Your task to perform on an android device: Show me recent news Image 0: 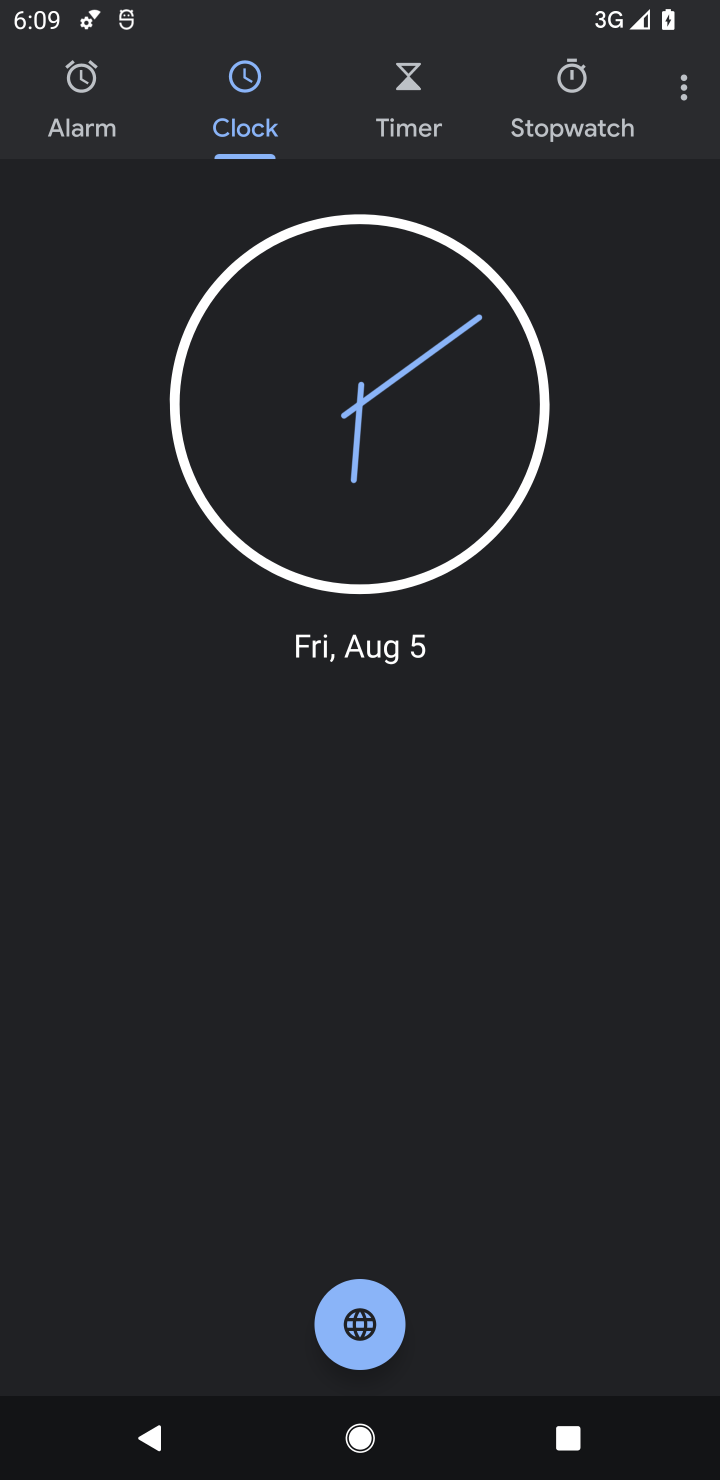
Step 0: press home button
Your task to perform on an android device: Show me recent news Image 1: 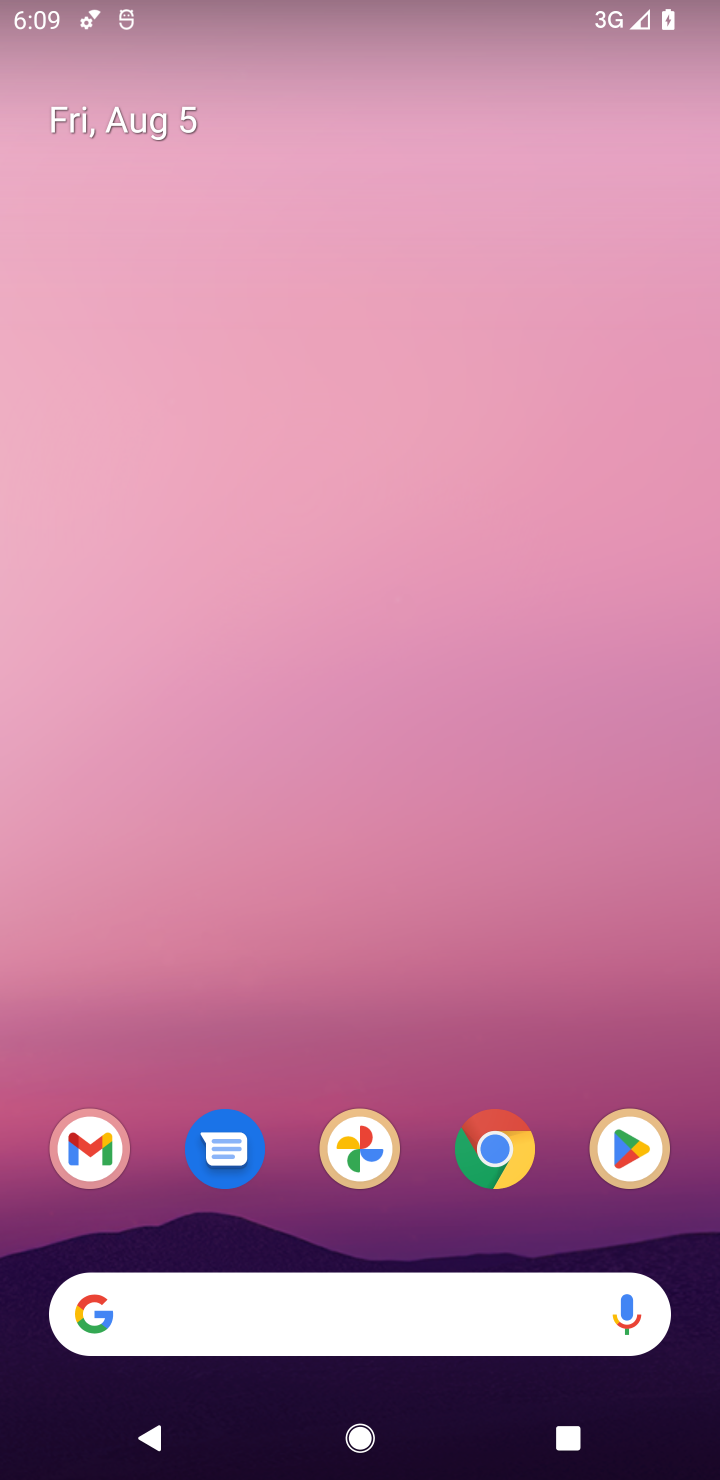
Step 1: click (337, 1305)
Your task to perform on an android device: Show me recent news Image 2: 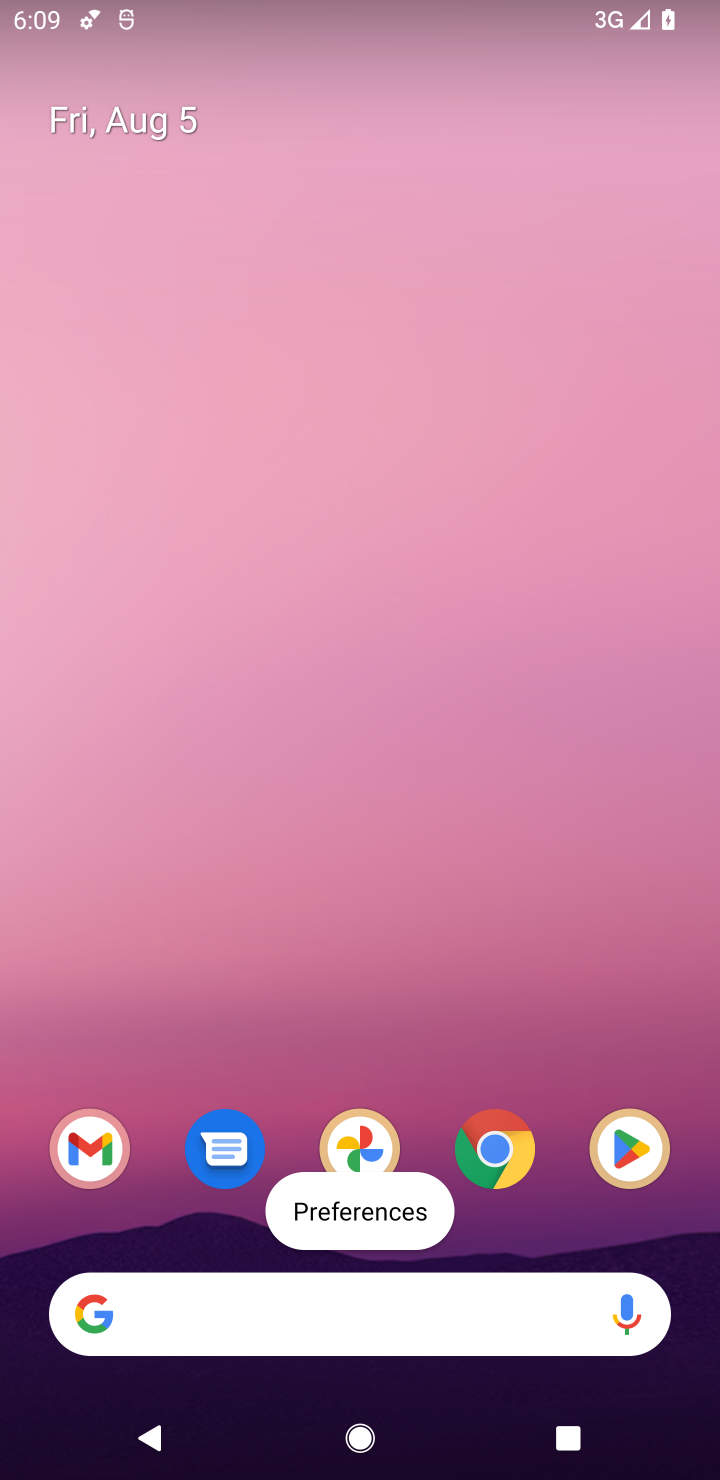
Step 2: click (262, 1319)
Your task to perform on an android device: Show me recent news Image 3: 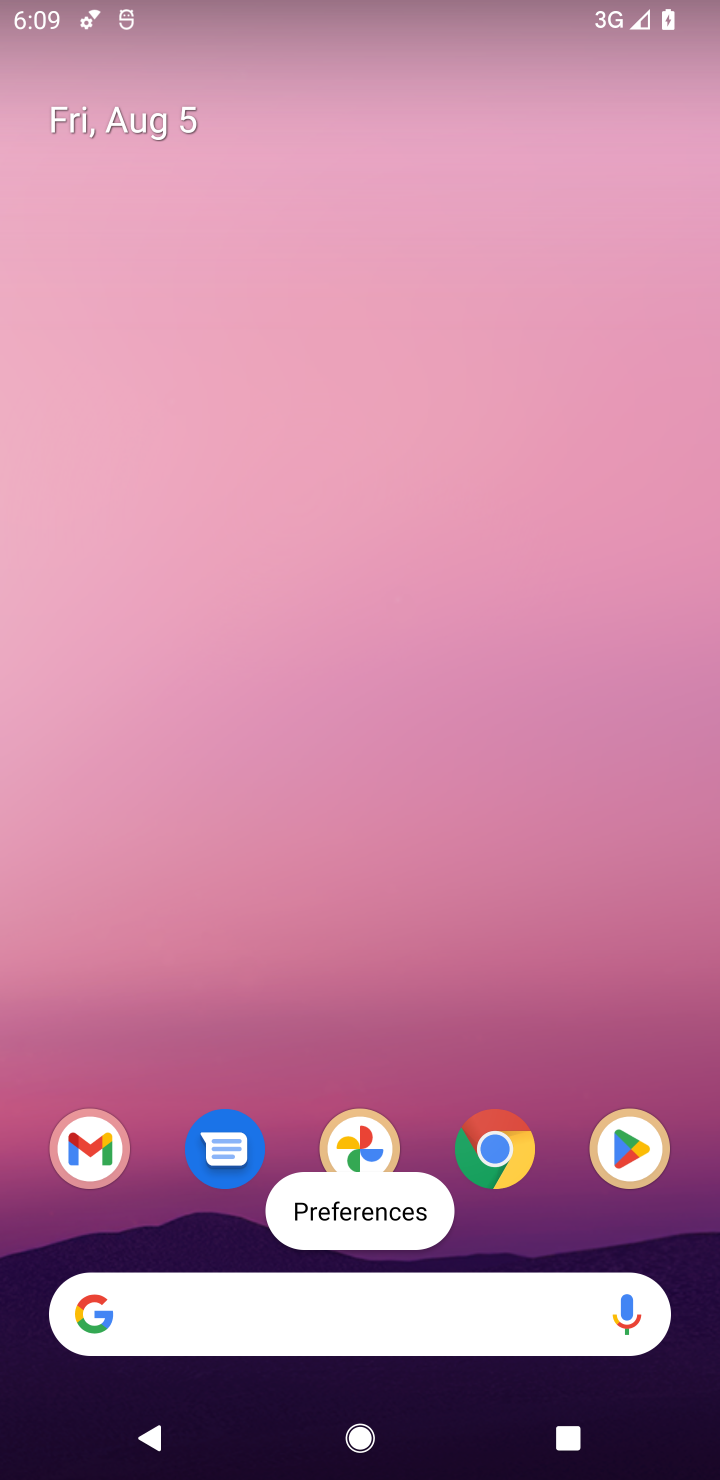
Step 3: click (262, 1319)
Your task to perform on an android device: Show me recent news Image 4: 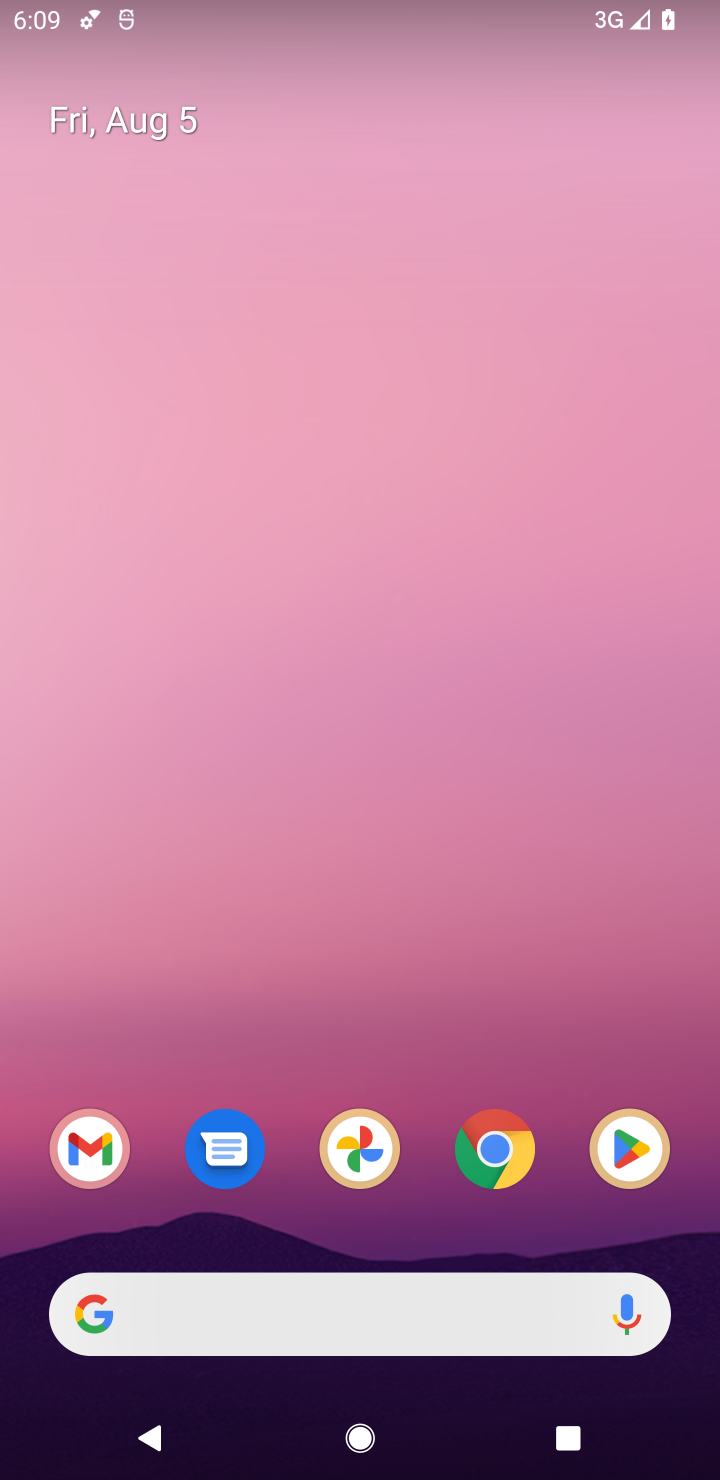
Step 4: click (642, 863)
Your task to perform on an android device: Show me recent news Image 5: 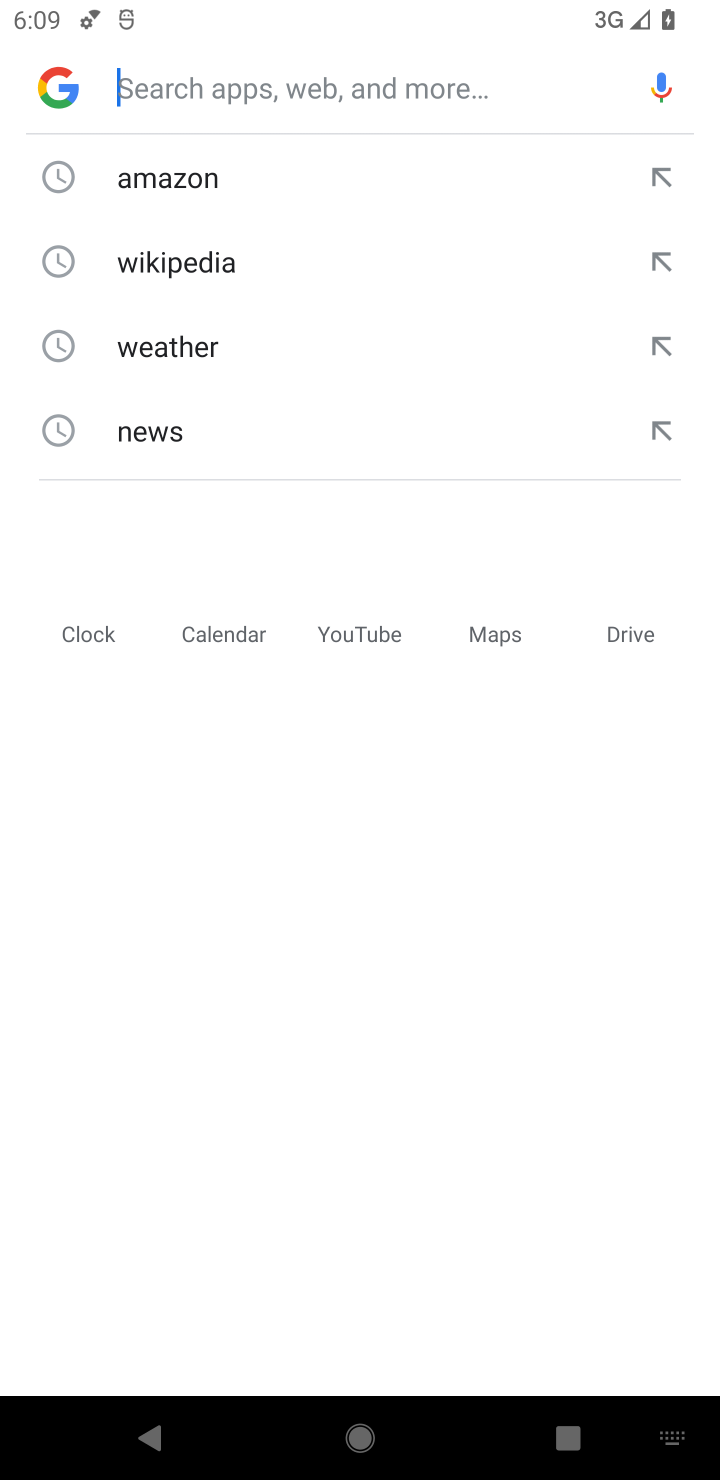
Step 5: click (162, 430)
Your task to perform on an android device: Show me recent news Image 6: 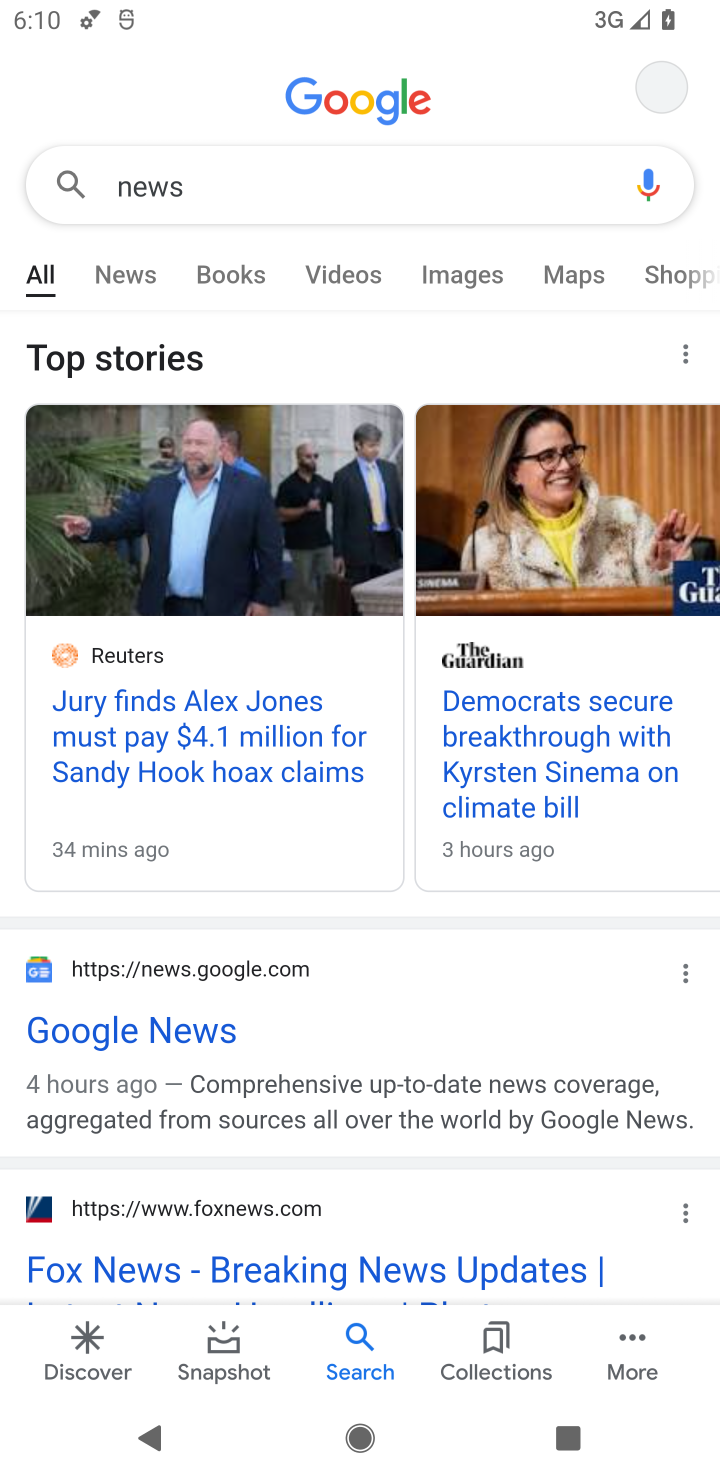
Step 6: click (66, 1010)
Your task to perform on an android device: Show me recent news Image 7: 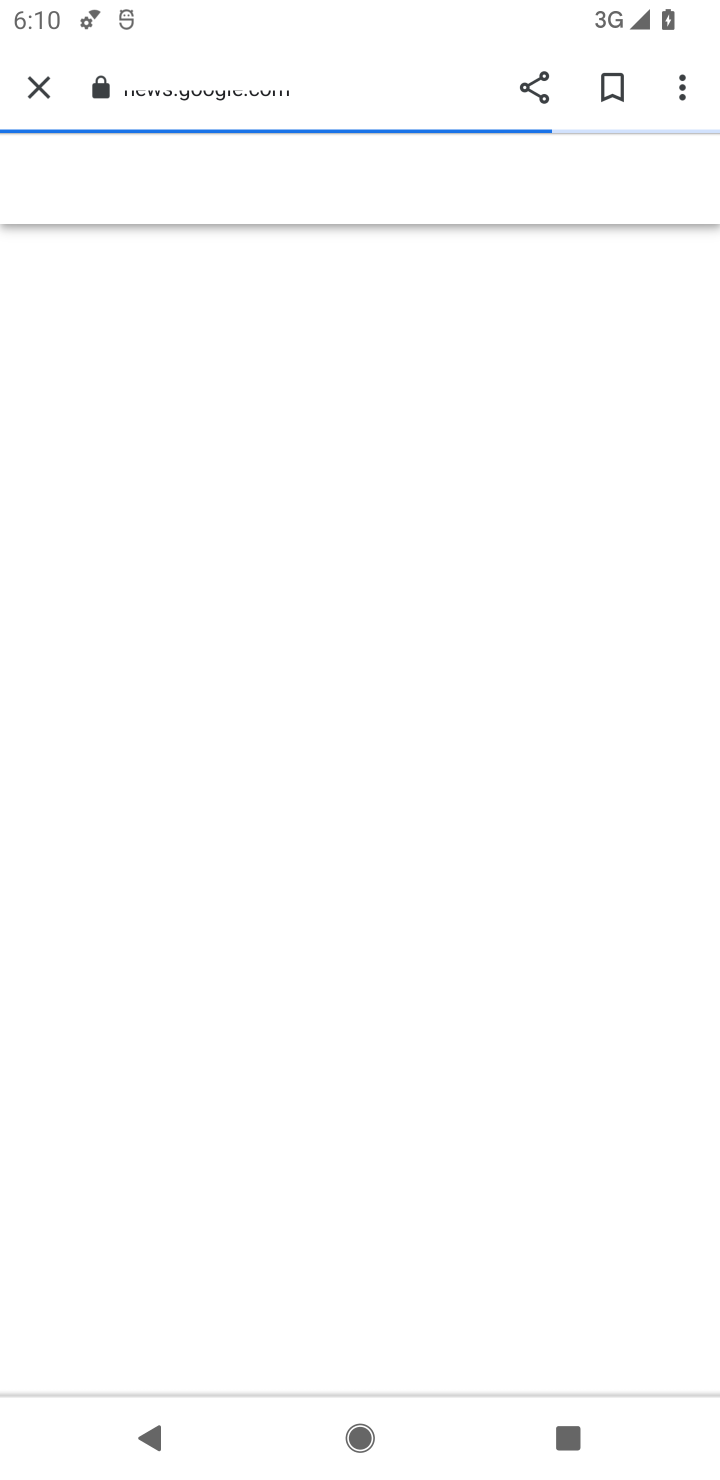
Step 7: click (301, 79)
Your task to perform on an android device: Show me recent news Image 8: 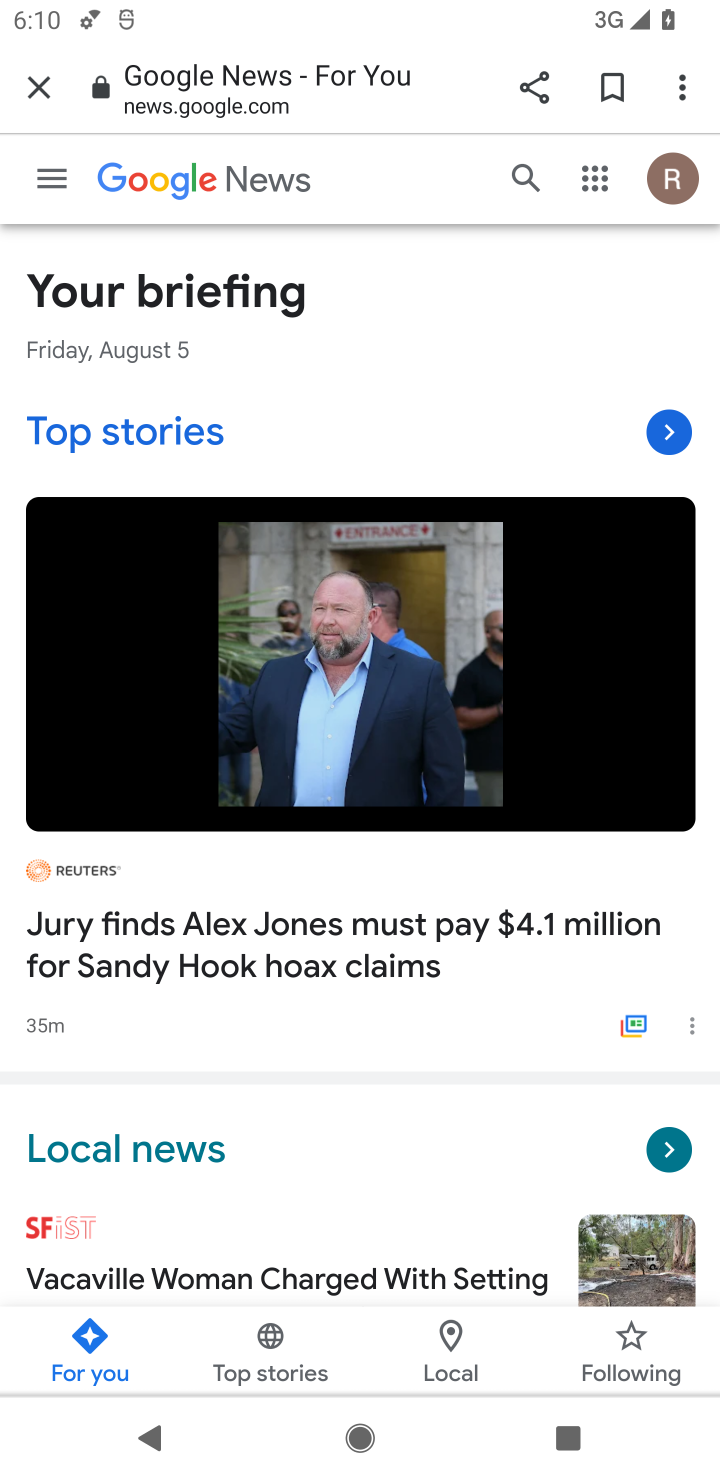
Step 8: click (298, 75)
Your task to perform on an android device: Show me recent news Image 9: 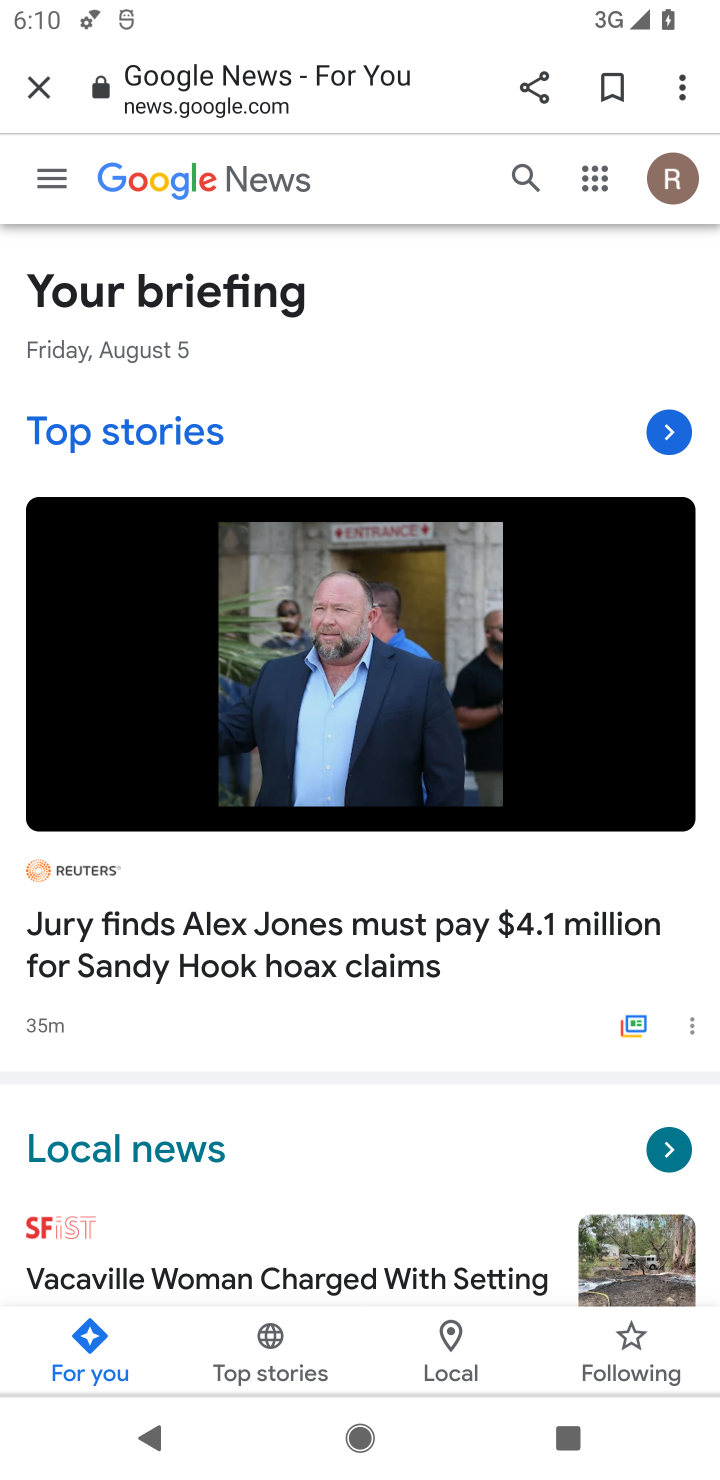
Step 9: click (298, 75)
Your task to perform on an android device: Show me recent news Image 10: 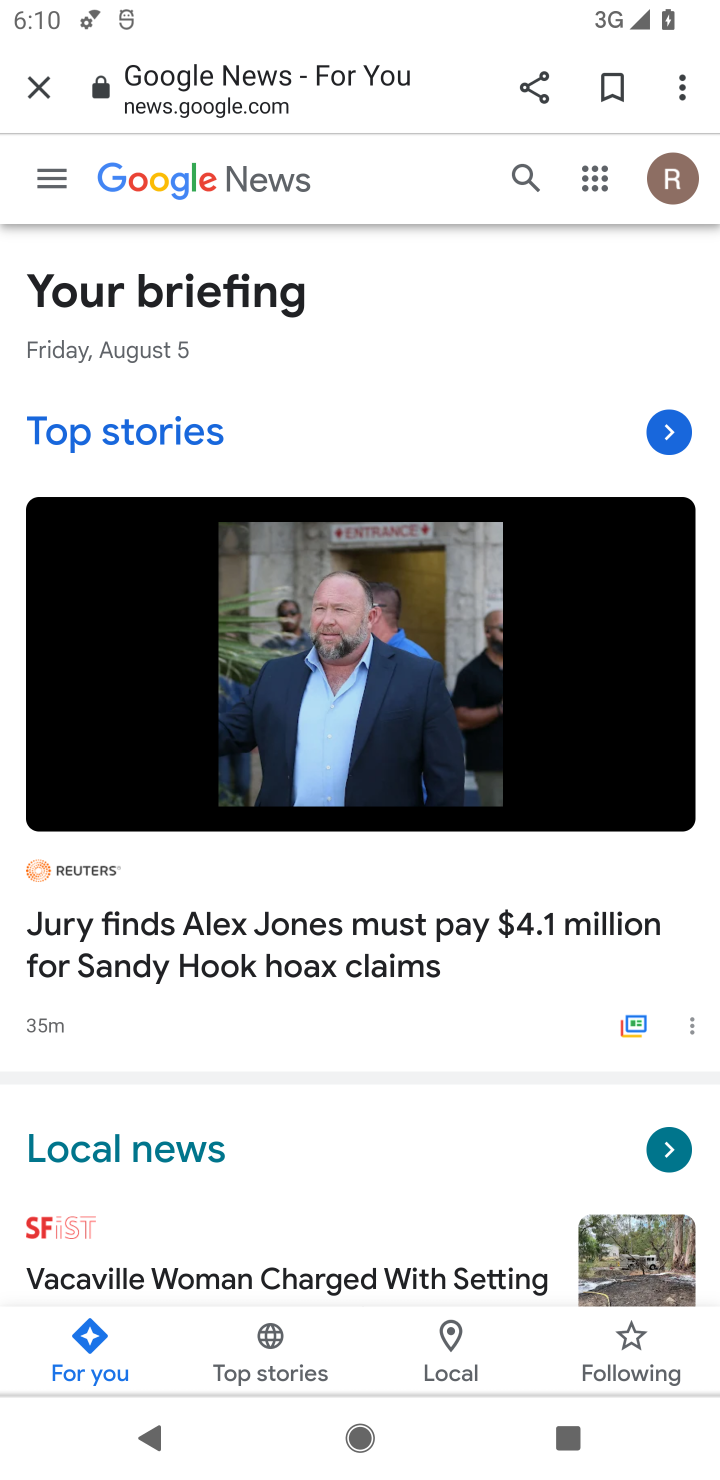
Step 10: click (30, 86)
Your task to perform on an android device: Show me recent news Image 11: 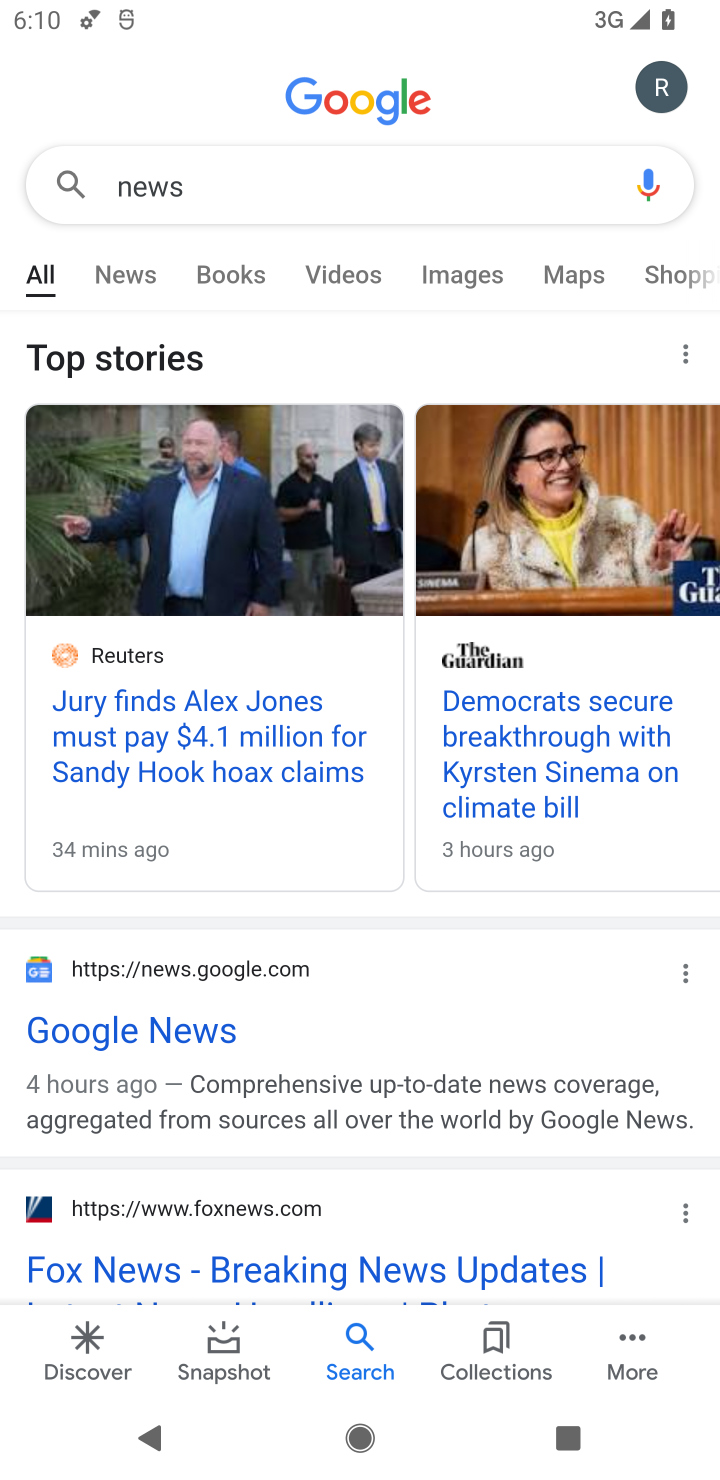
Step 11: click (155, 193)
Your task to perform on an android device: Show me recent news Image 12: 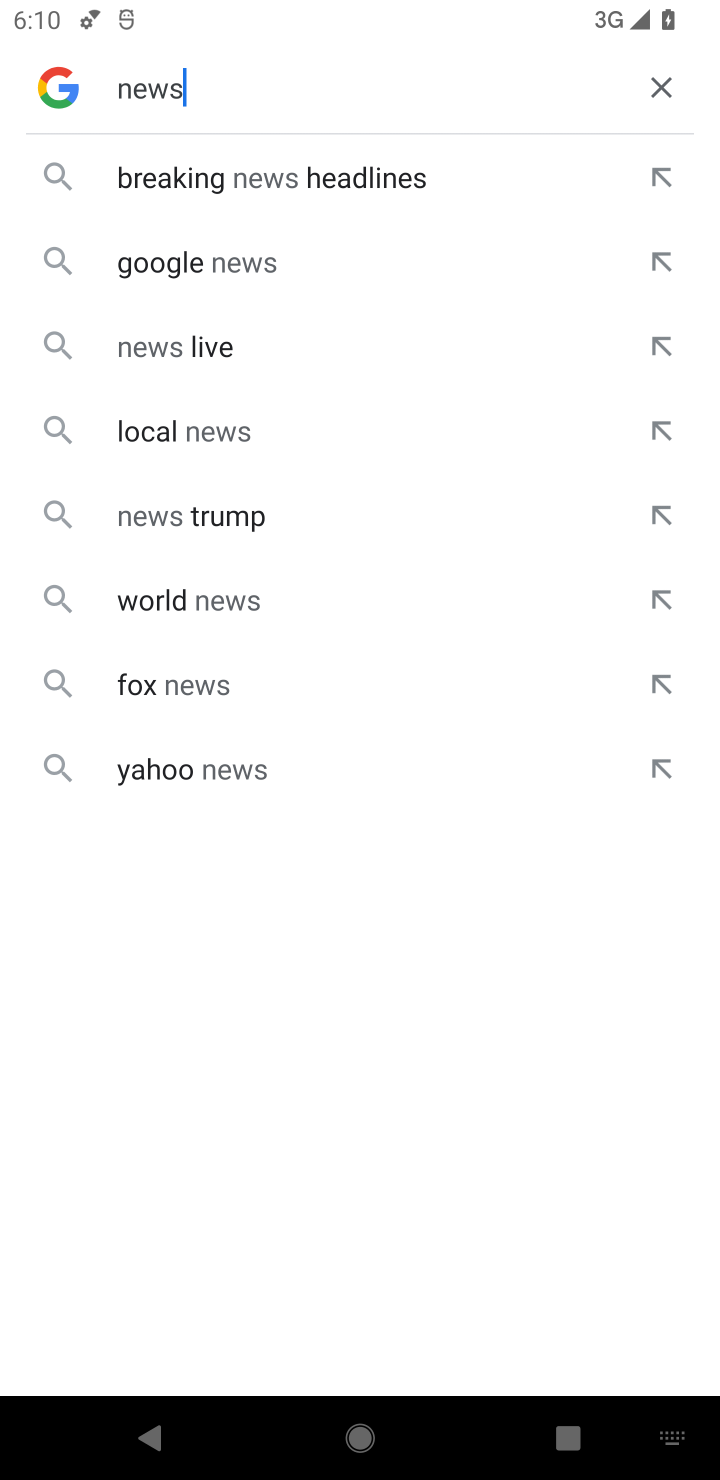
Step 12: click (119, 91)
Your task to perform on an android device: Show me recent news Image 13: 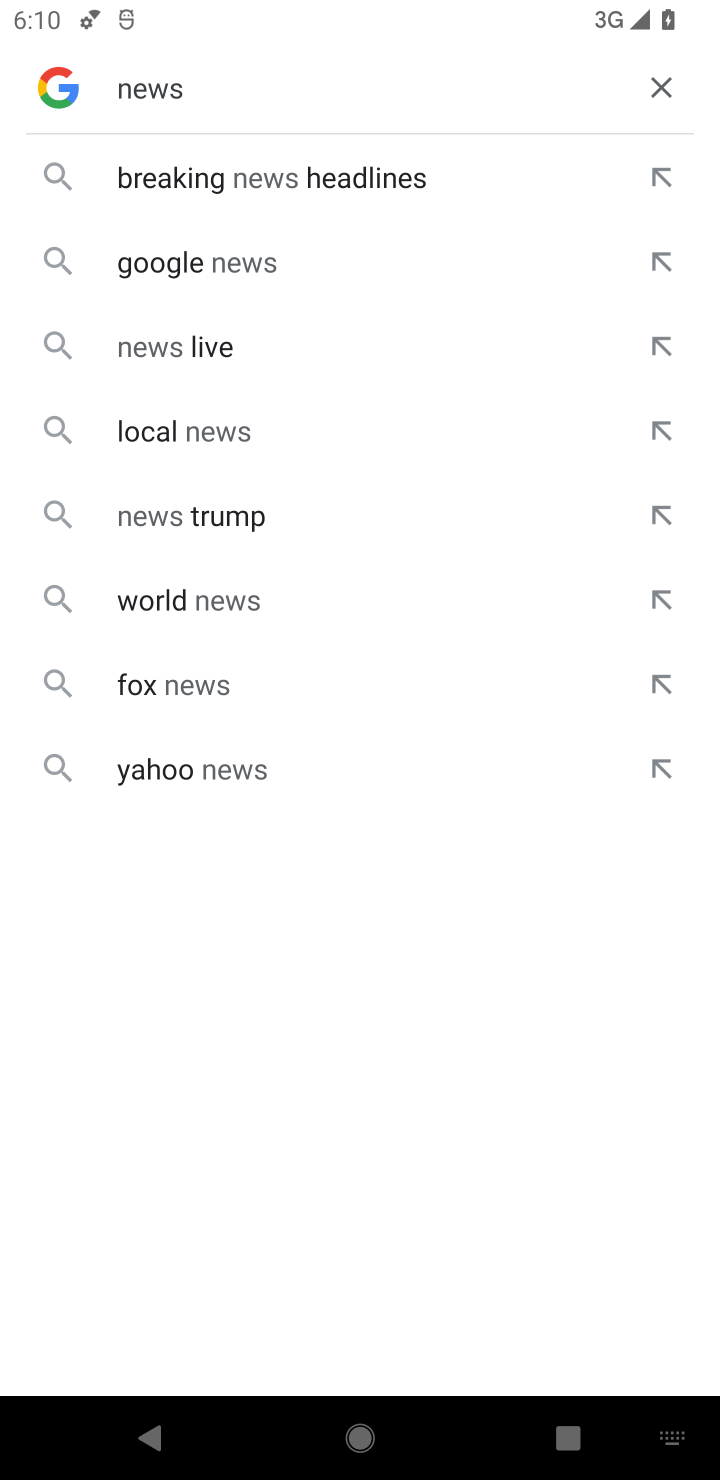
Step 13: type "recent "
Your task to perform on an android device: Show me recent news Image 14: 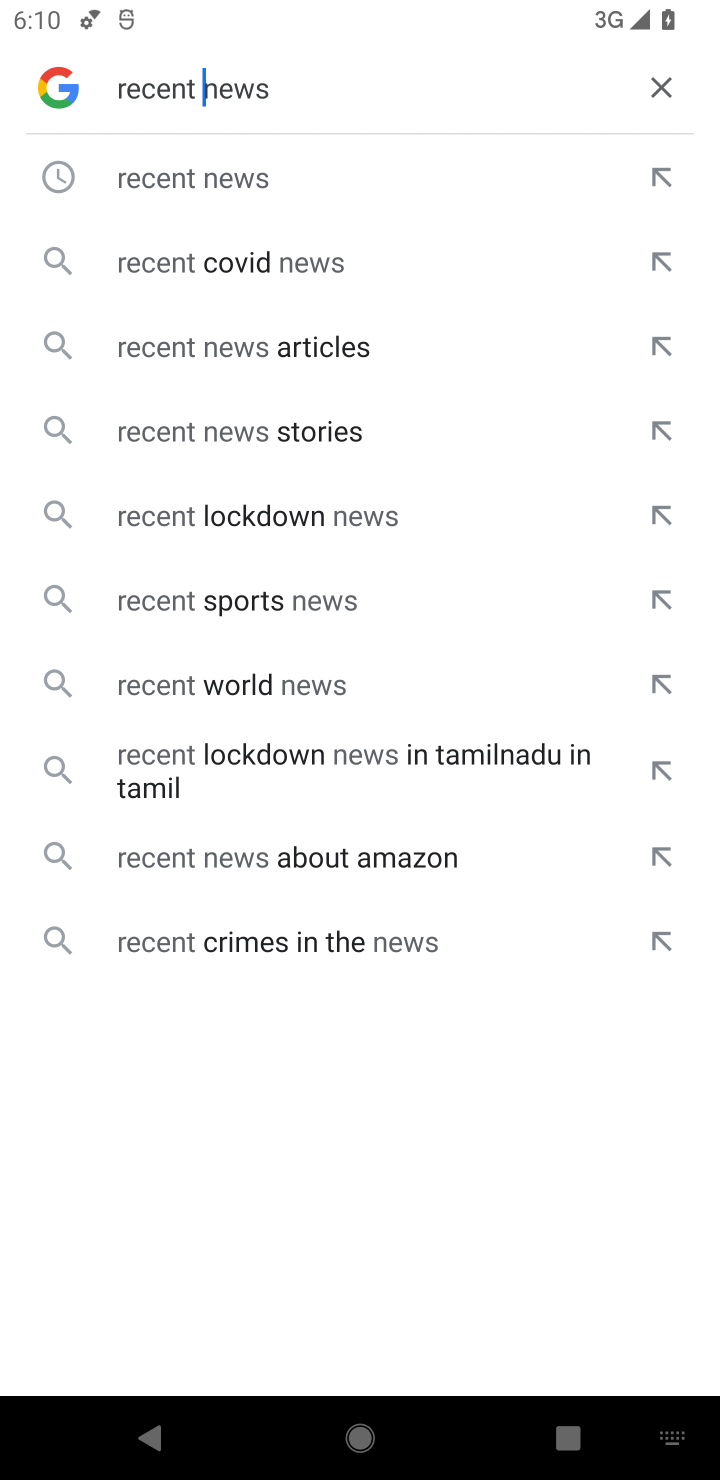
Step 14: click (212, 169)
Your task to perform on an android device: Show me recent news Image 15: 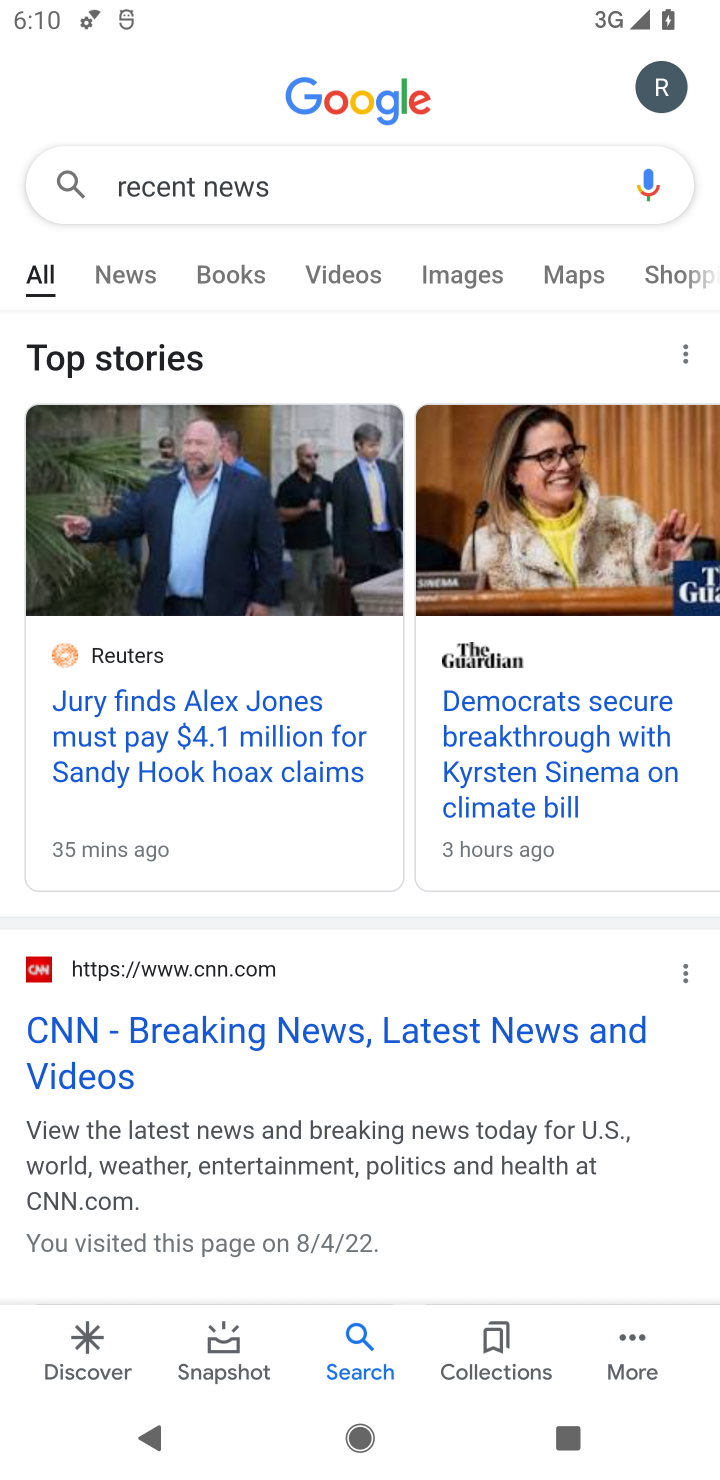
Step 15: task complete